Your task to perform on an android device: Go to Google maps Image 0: 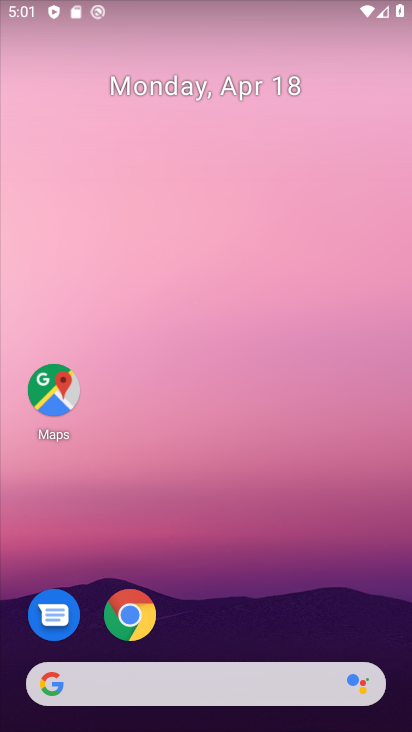
Step 0: drag from (346, 575) to (319, 12)
Your task to perform on an android device: Go to Google maps Image 1: 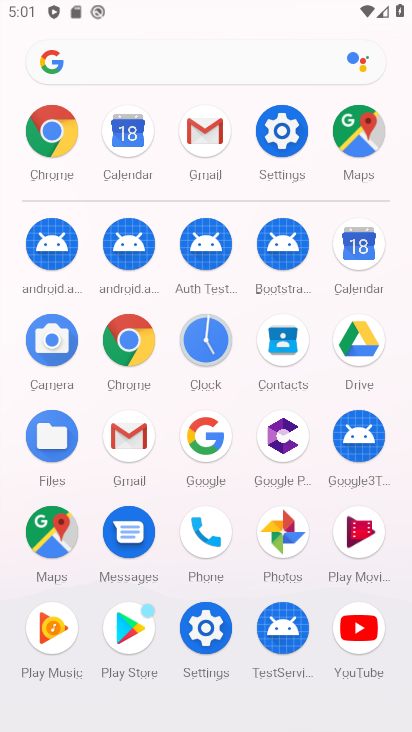
Step 1: click (47, 526)
Your task to perform on an android device: Go to Google maps Image 2: 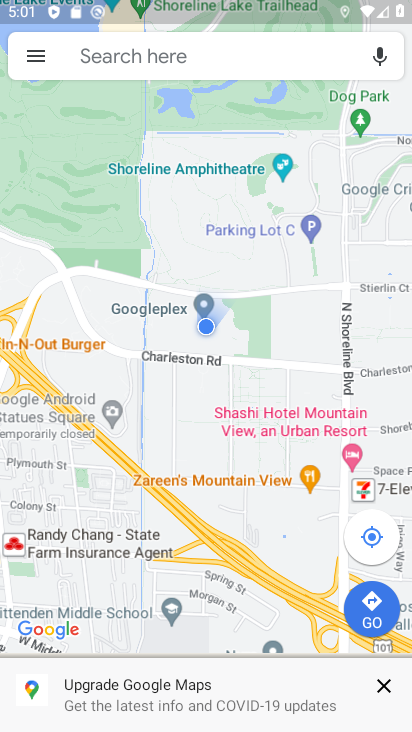
Step 2: task complete